Your task to perform on an android device: check android version Image 0: 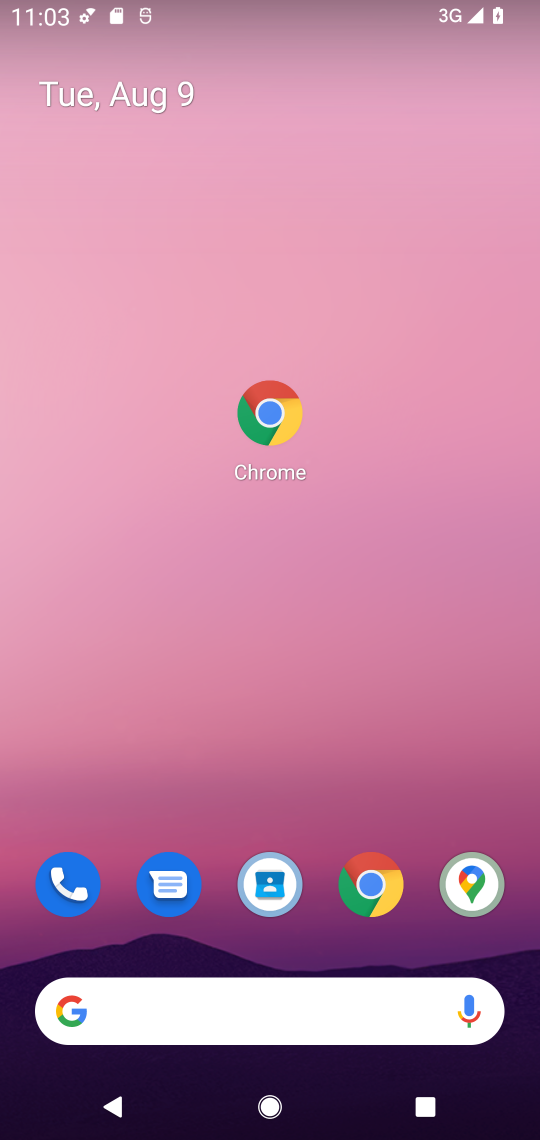
Step 0: press back button
Your task to perform on an android device: check android version Image 1: 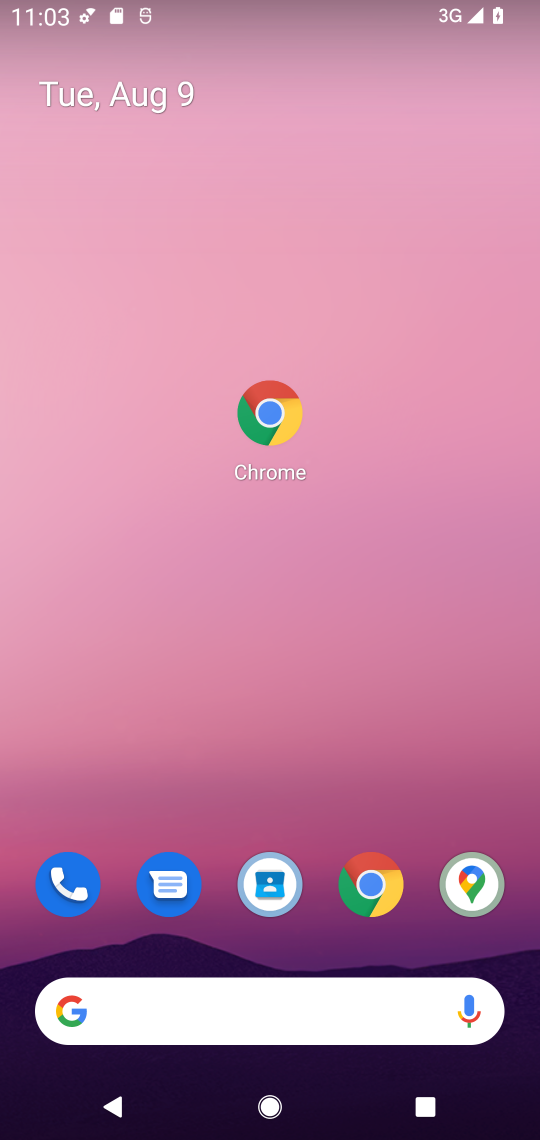
Step 1: drag from (134, 54) to (250, 127)
Your task to perform on an android device: check android version Image 2: 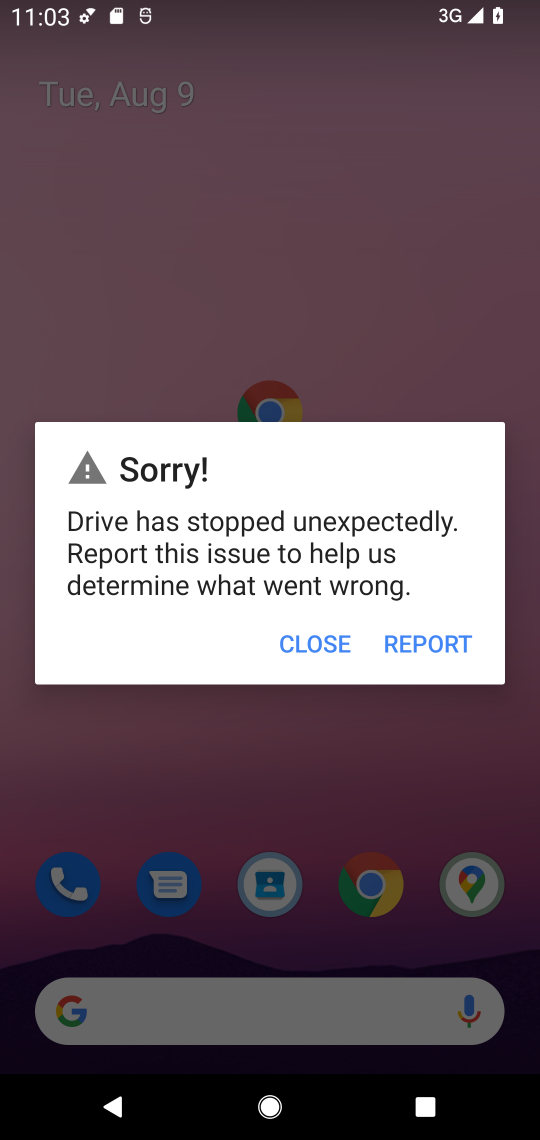
Step 2: click (315, 642)
Your task to perform on an android device: check android version Image 3: 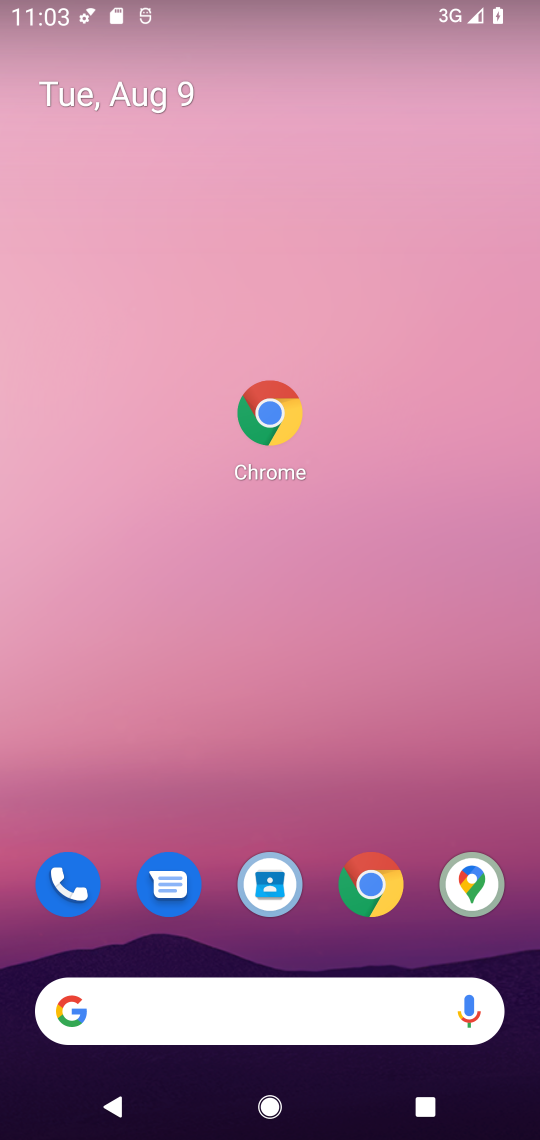
Step 3: drag from (239, 756) to (97, 80)
Your task to perform on an android device: check android version Image 4: 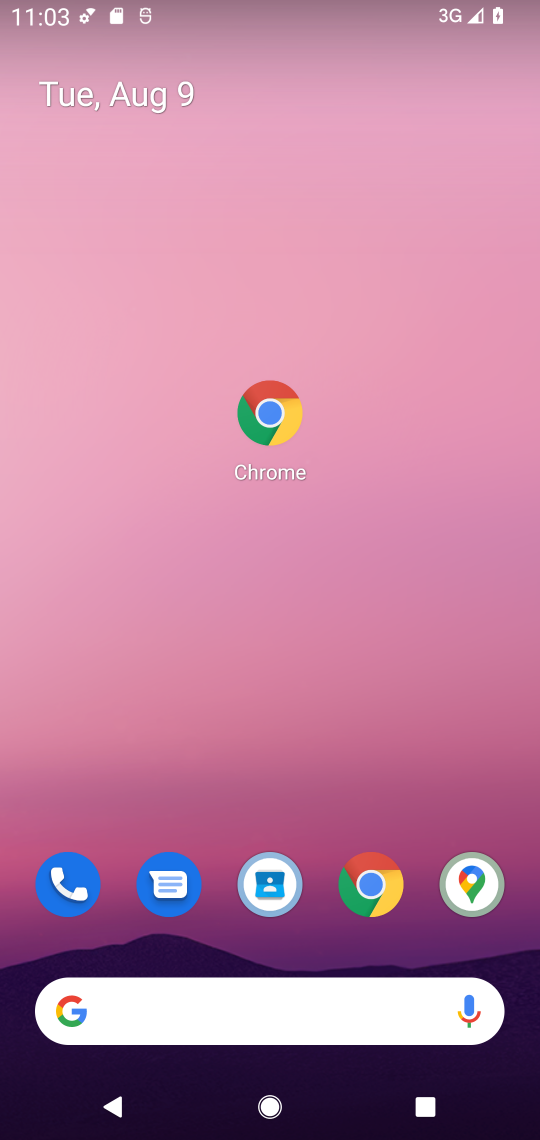
Step 4: drag from (255, 568) to (175, 13)
Your task to perform on an android device: check android version Image 5: 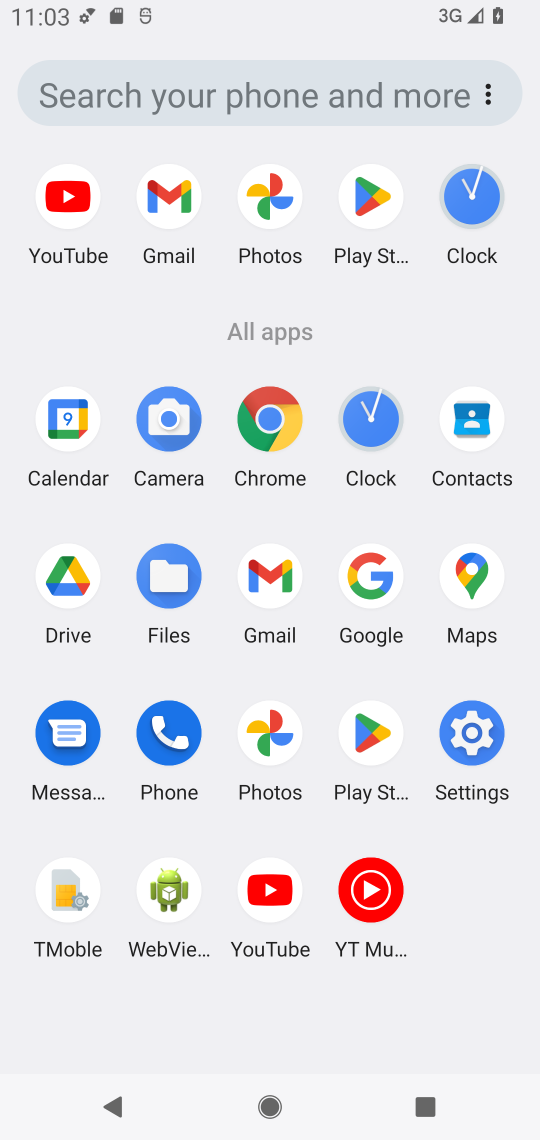
Step 5: drag from (297, 711) to (237, 217)
Your task to perform on an android device: check android version Image 6: 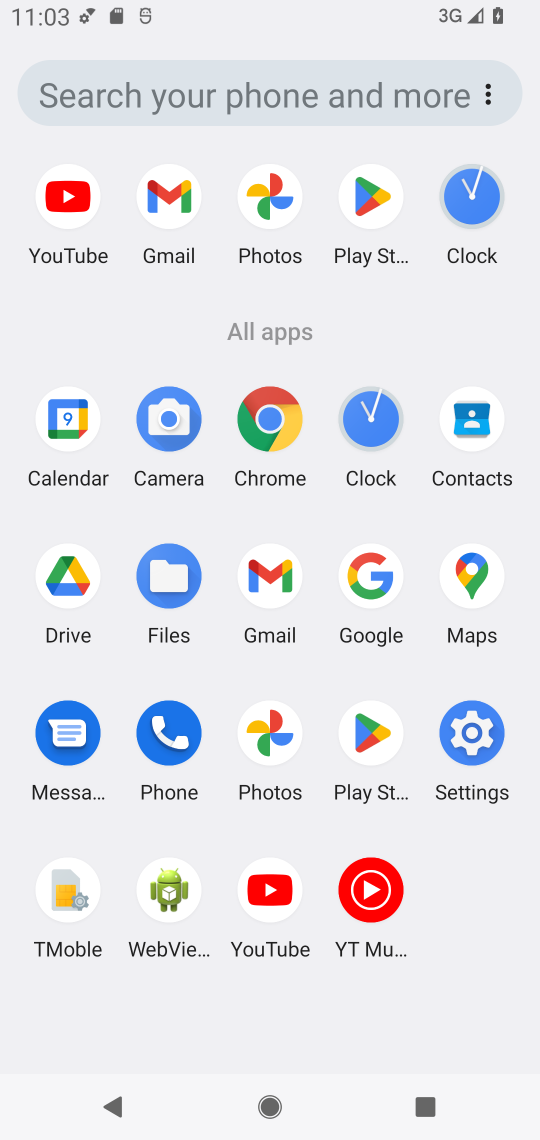
Step 6: drag from (270, 258) to (238, 777)
Your task to perform on an android device: check android version Image 7: 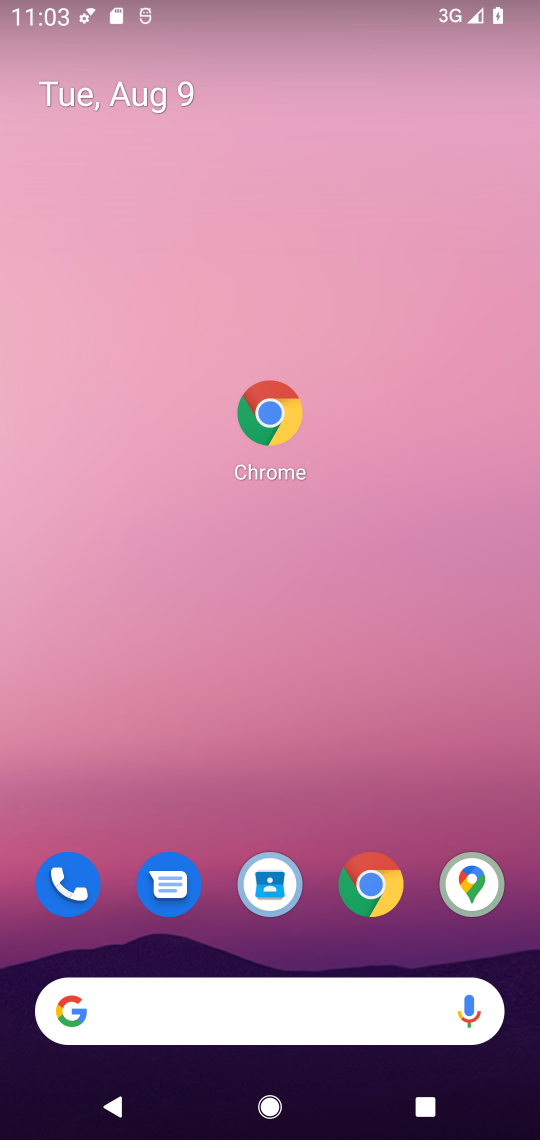
Step 7: drag from (332, 1012) to (210, 301)
Your task to perform on an android device: check android version Image 8: 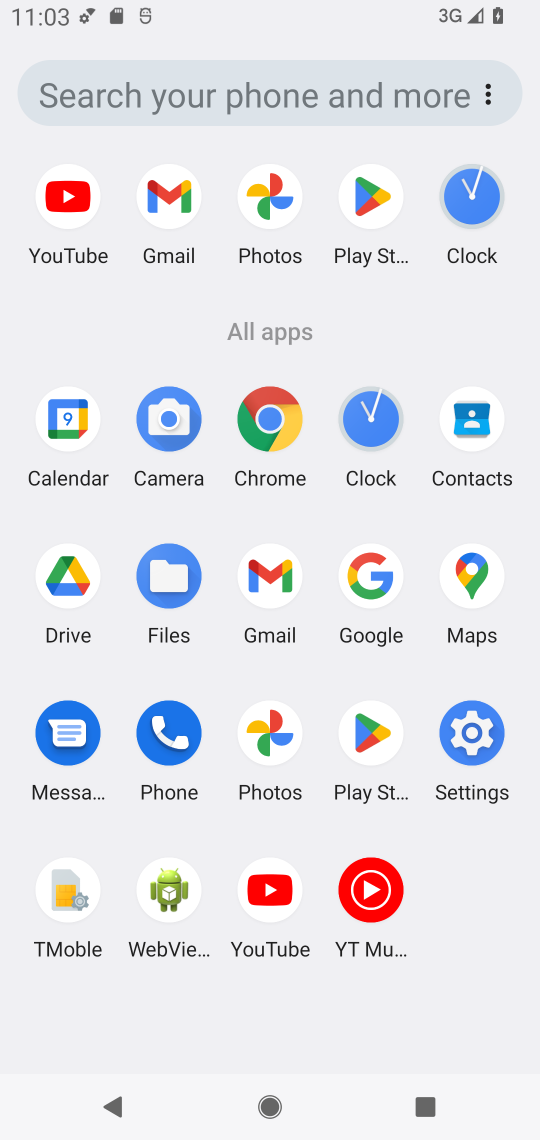
Step 8: click (472, 732)
Your task to perform on an android device: check android version Image 9: 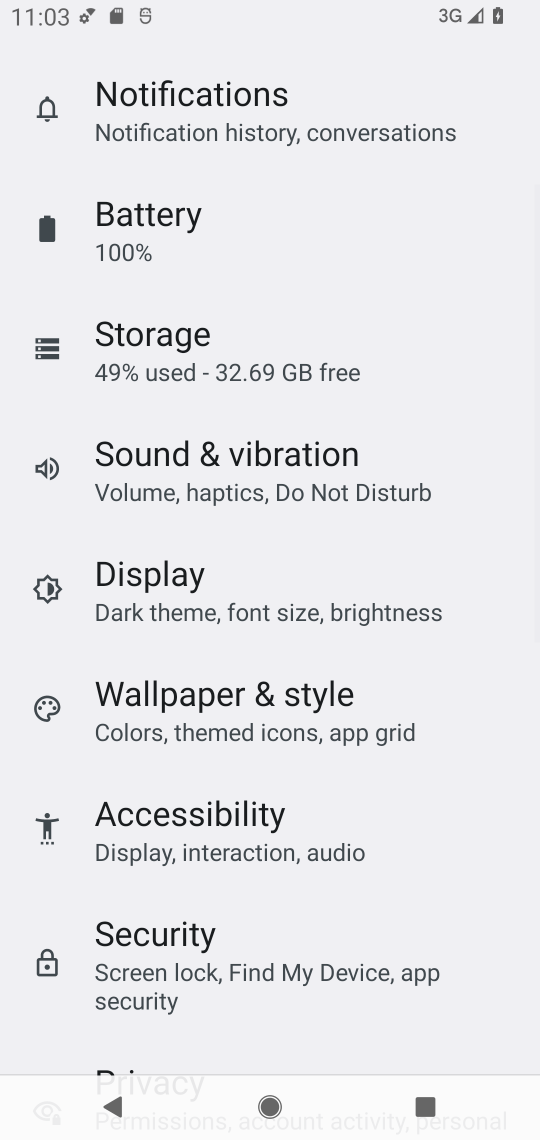
Step 9: drag from (166, 920) to (70, 279)
Your task to perform on an android device: check android version Image 10: 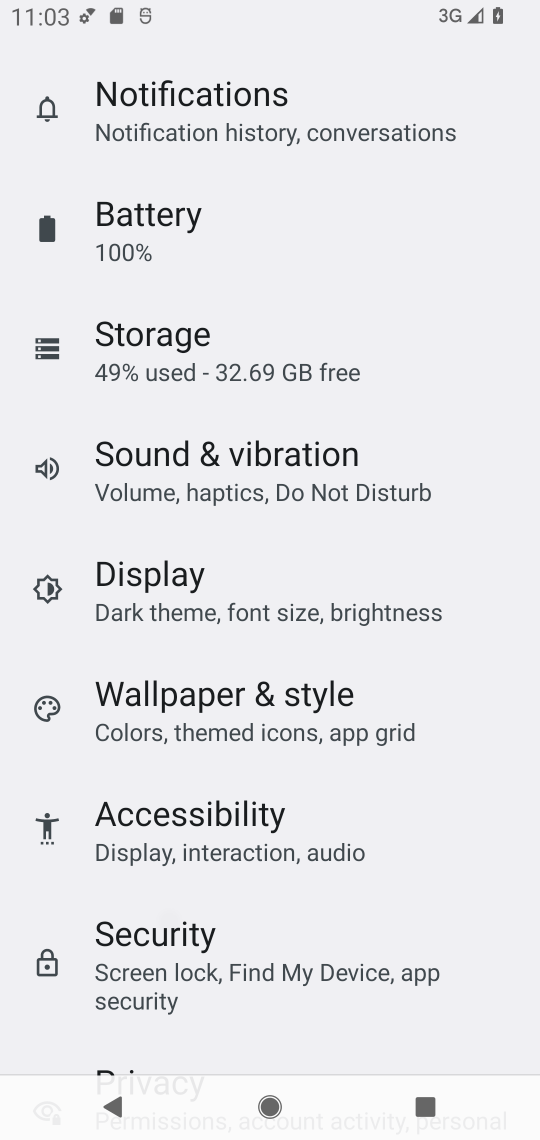
Step 10: drag from (268, 774) to (207, 204)
Your task to perform on an android device: check android version Image 11: 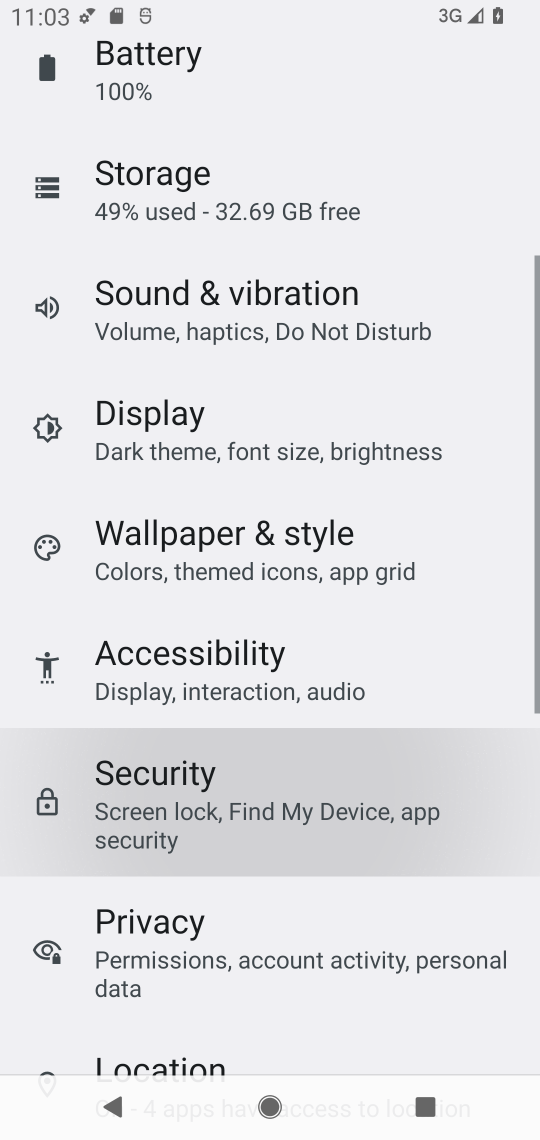
Step 11: drag from (223, 713) to (176, 220)
Your task to perform on an android device: check android version Image 12: 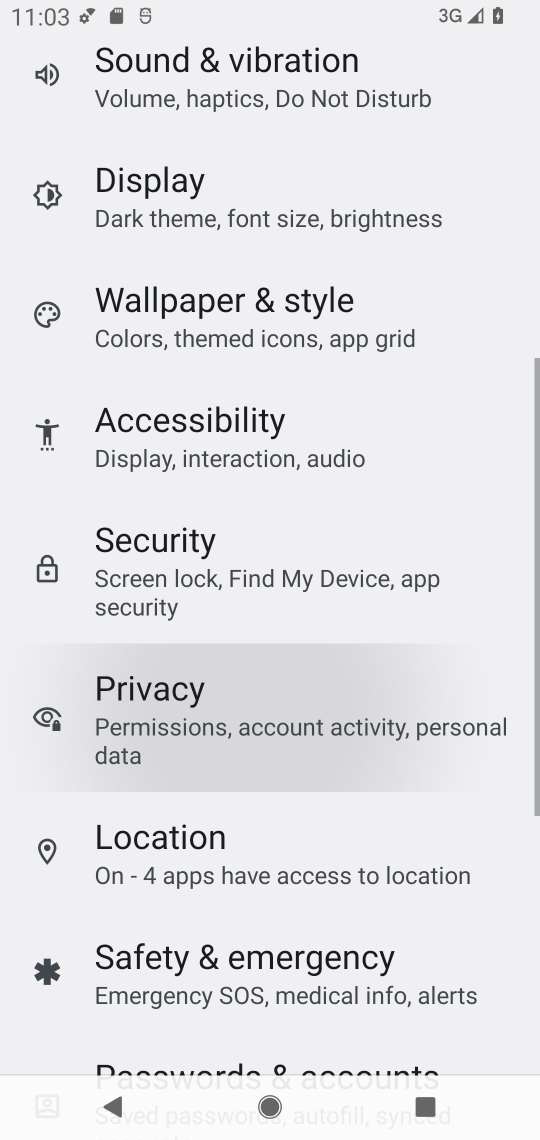
Step 12: drag from (299, 886) to (299, 327)
Your task to perform on an android device: check android version Image 13: 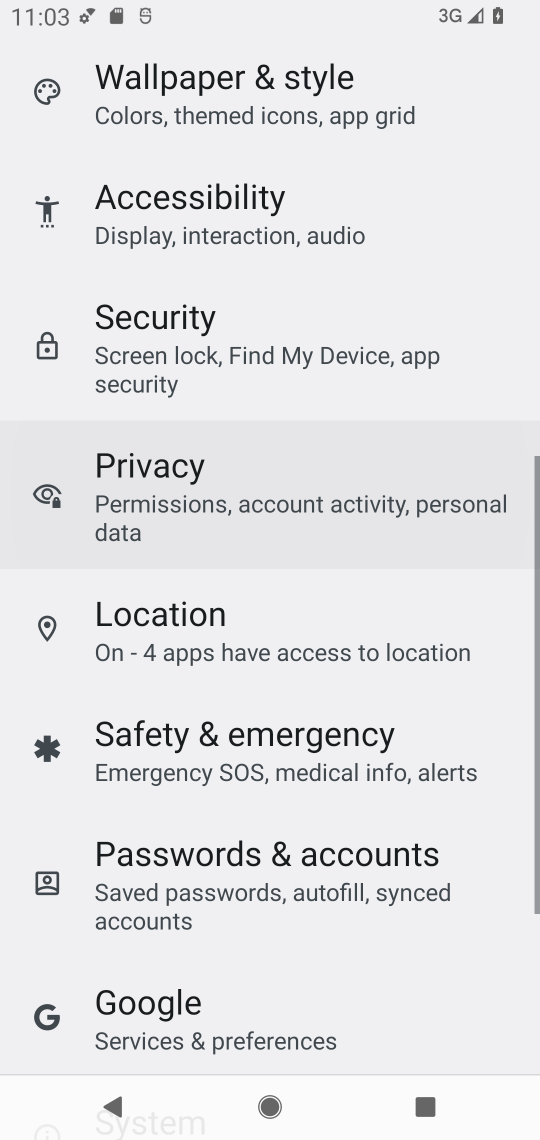
Step 13: drag from (300, 891) to (268, 313)
Your task to perform on an android device: check android version Image 14: 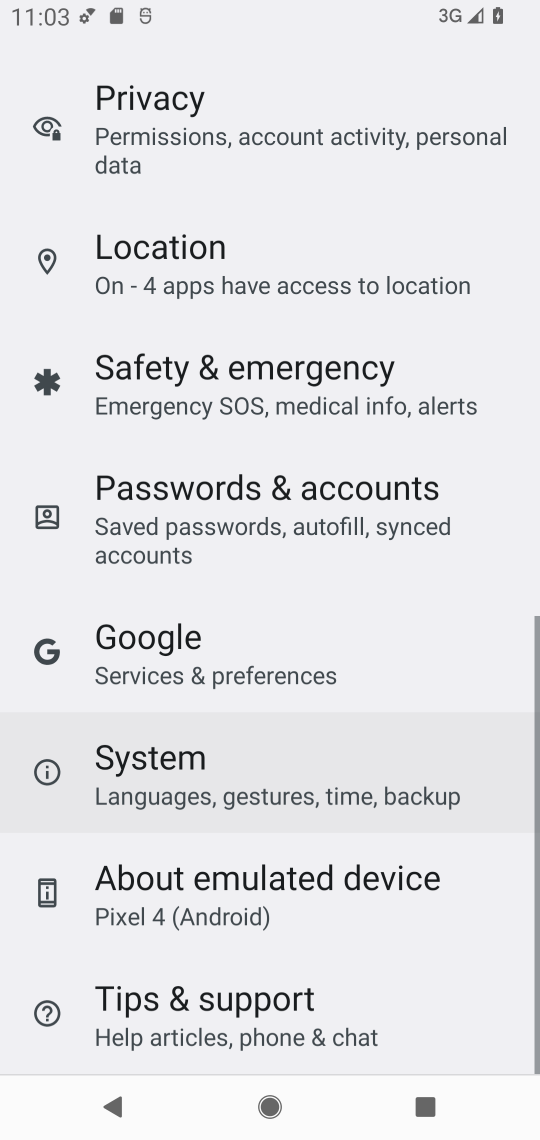
Step 14: drag from (234, 576) to (234, 321)
Your task to perform on an android device: check android version Image 15: 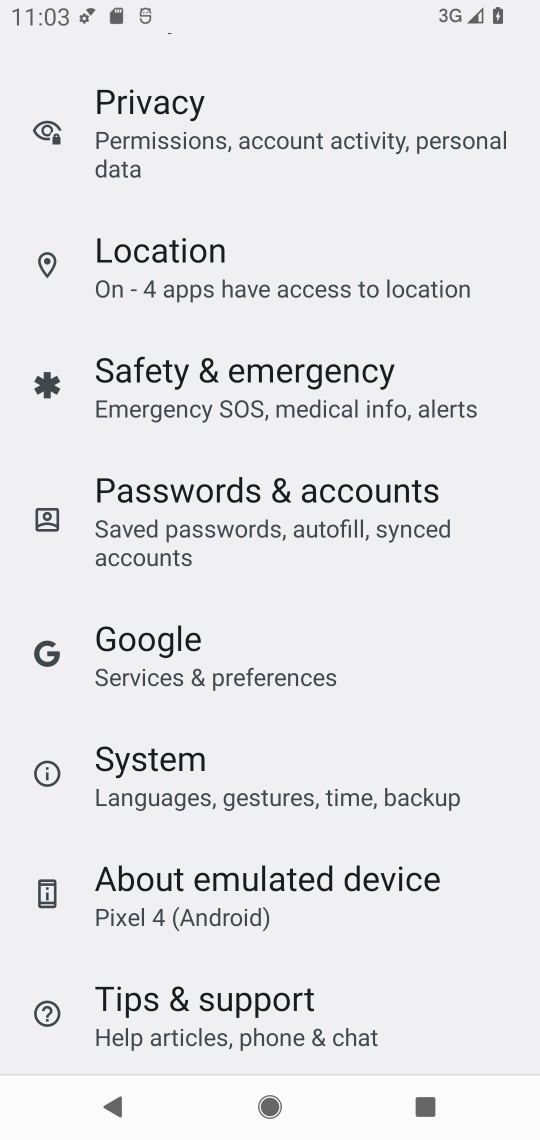
Step 15: click (235, 894)
Your task to perform on an android device: check android version Image 16: 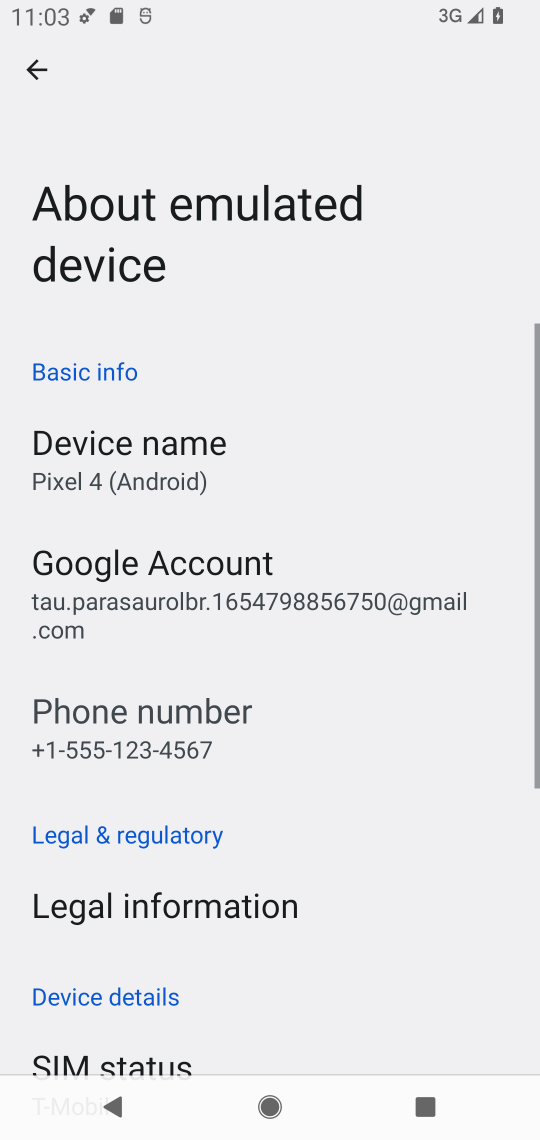
Step 16: drag from (188, 915) to (135, 388)
Your task to perform on an android device: check android version Image 17: 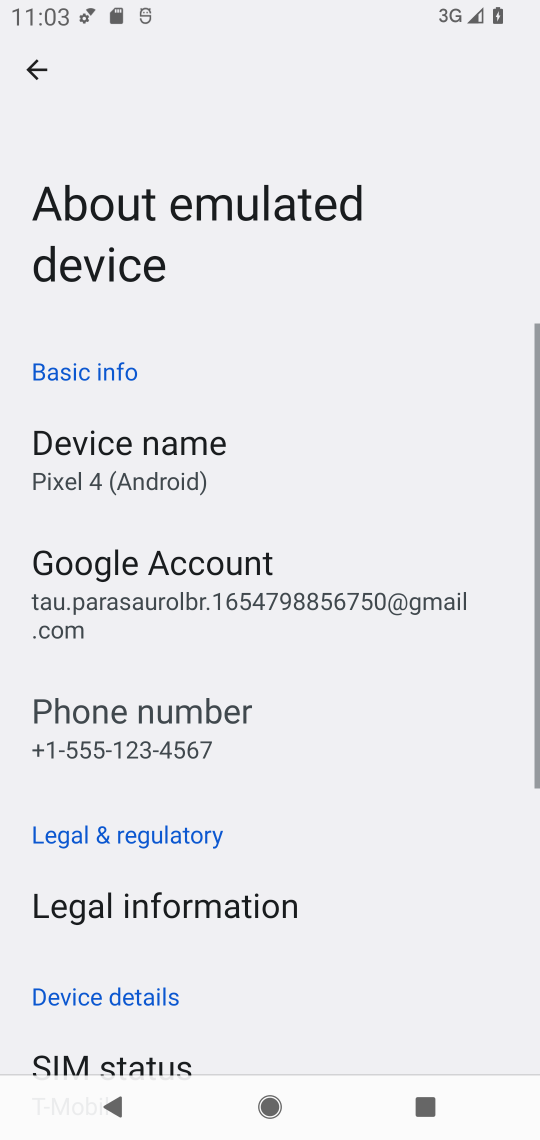
Step 17: drag from (145, 748) to (114, 502)
Your task to perform on an android device: check android version Image 18: 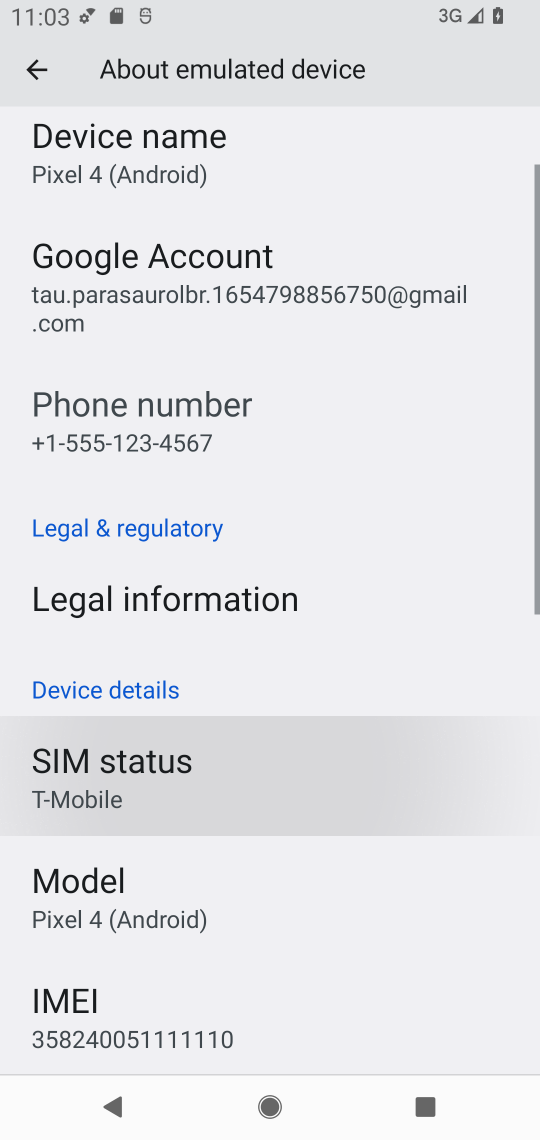
Step 18: drag from (156, 666) to (156, 402)
Your task to perform on an android device: check android version Image 19: 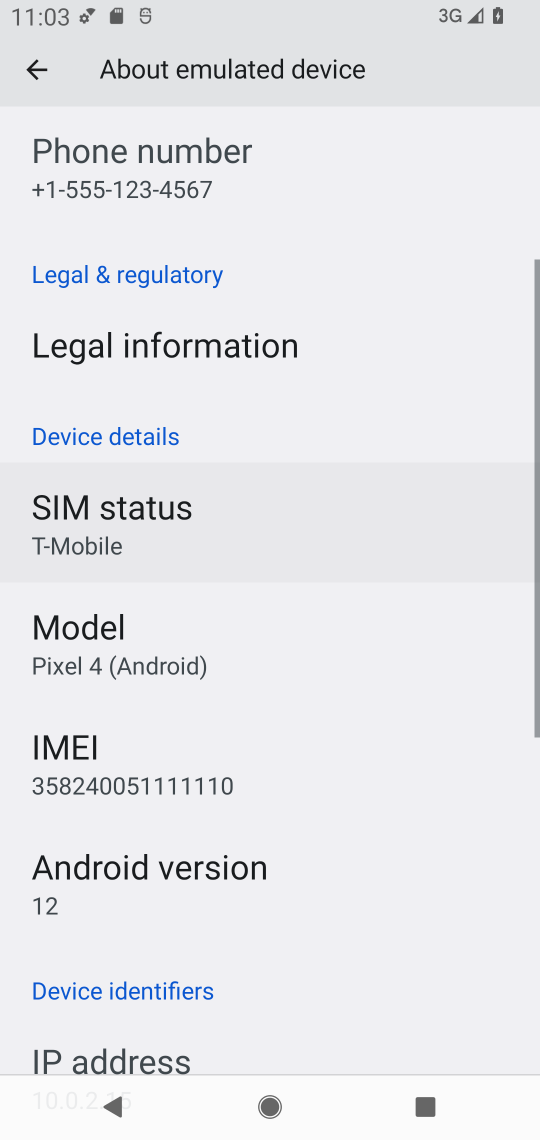
Step 19: drag from (240, 918) to (231, 432)
Your task to perform on an android device: check android version Image 20: 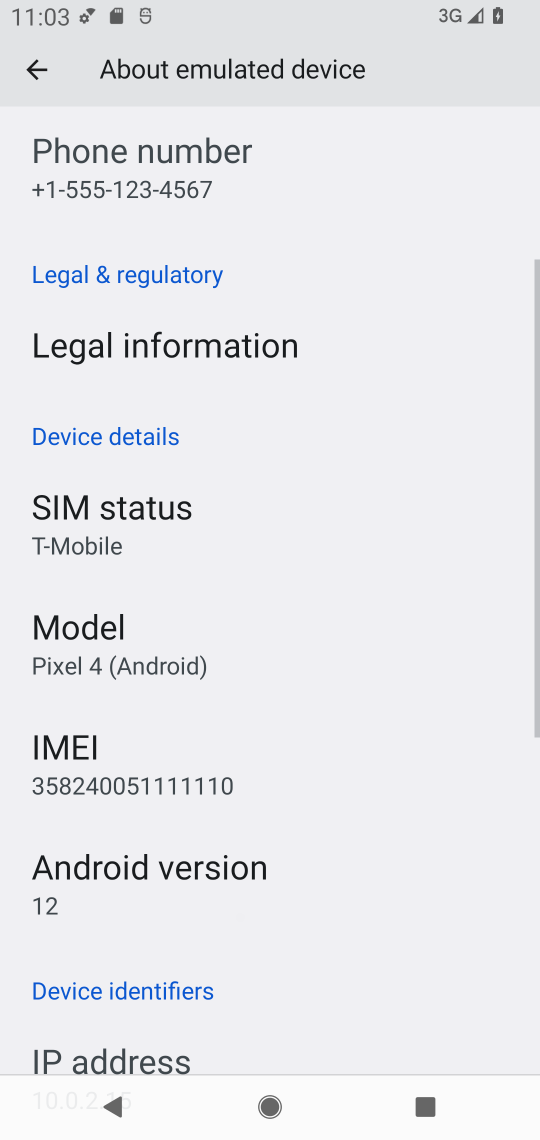
Step 20: drag from (311, 825) to (257, 469)
Your task to perform on an android device: check android version Image 21: 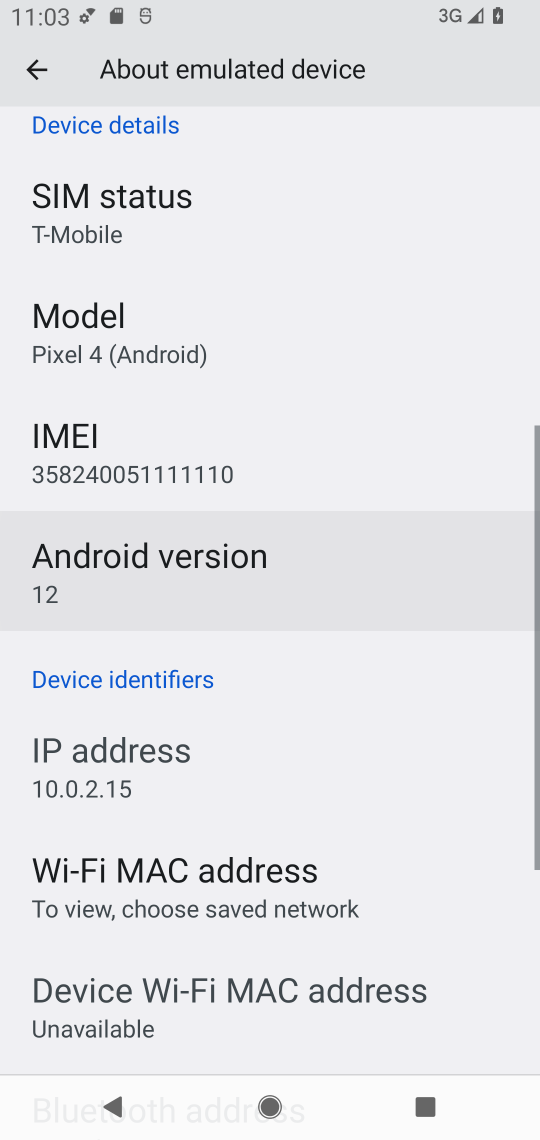
Step 21: drag from (309, 807) to (276, 316)
Your task to perform on an android device: check android version Image 22: 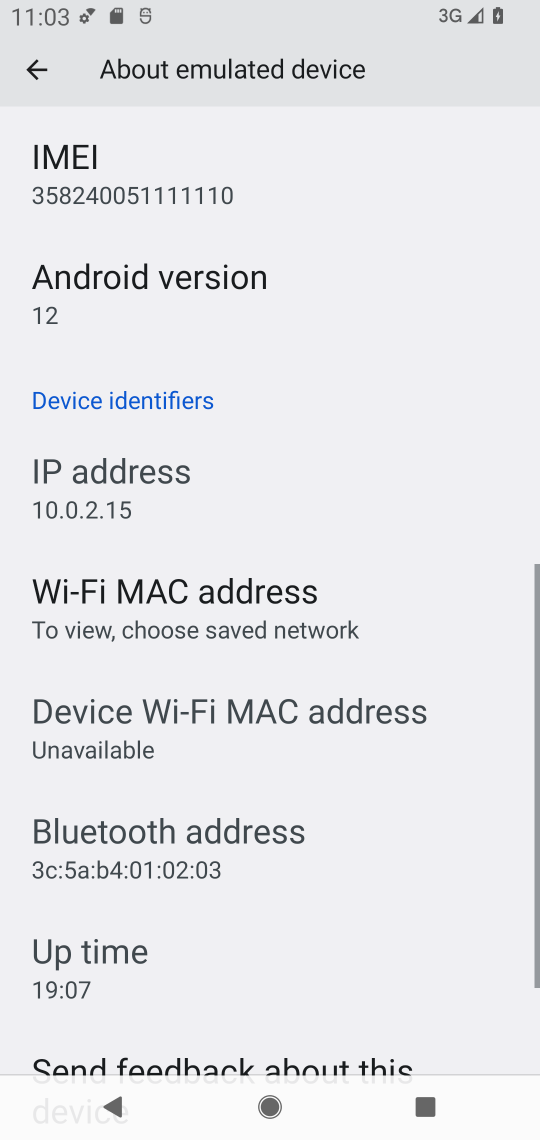
Step 22: click (131, 303)
Your task to perform on an android device: check android version Image 23: 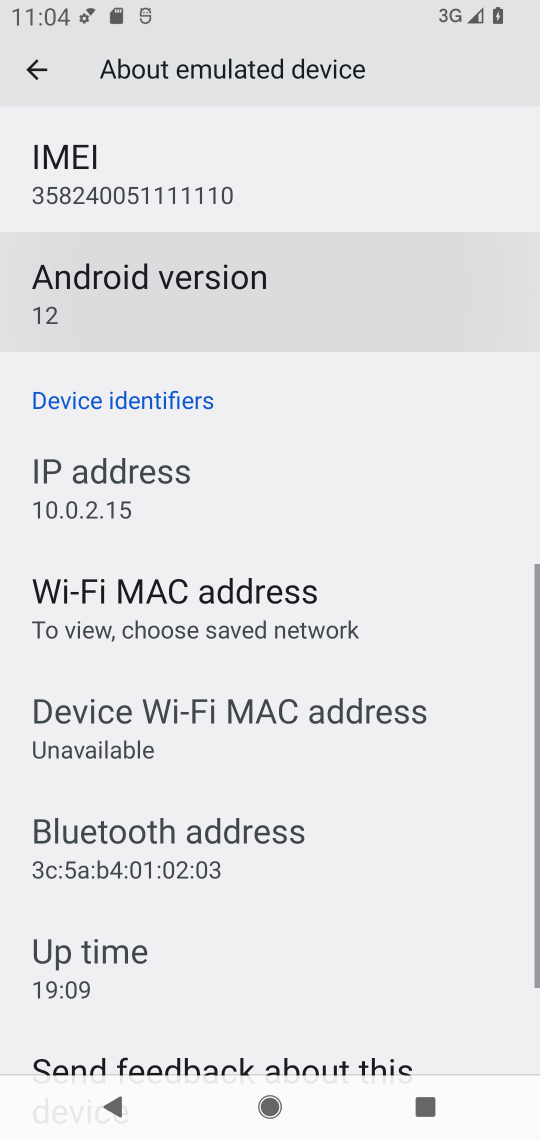
Step 23: click (131, 300)
Your task to perform on an android device: check android version Image 24: 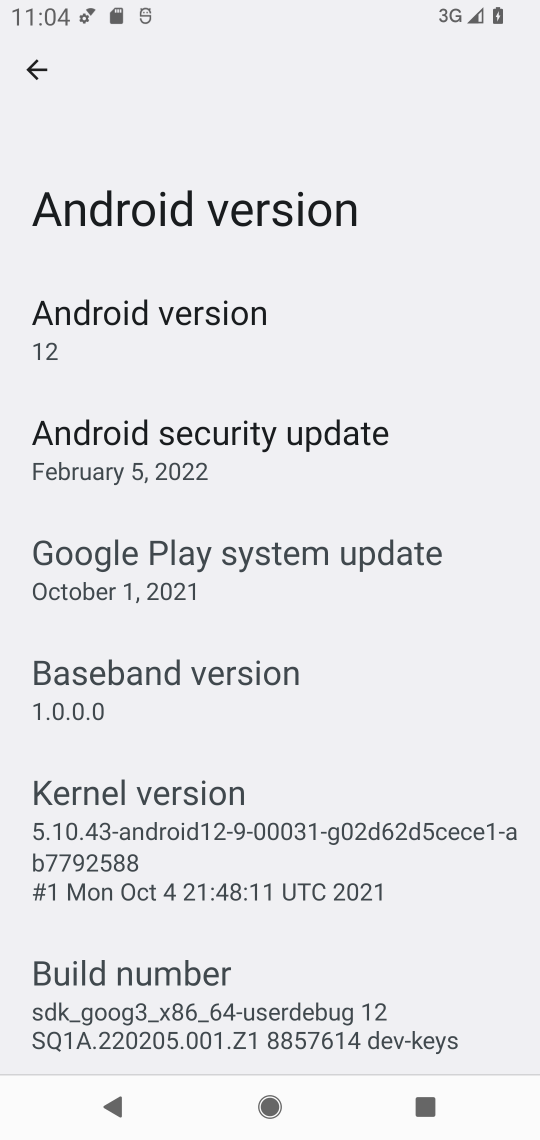
Step 24: task complete